Your task to perform on an android device: Go to battery settings Image 0: 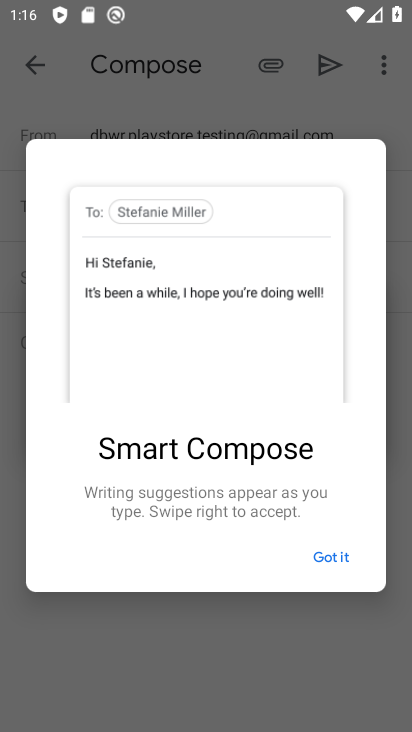
Step 0: press home button
Your task to perform on an android device: Go to battery settings Image 1: 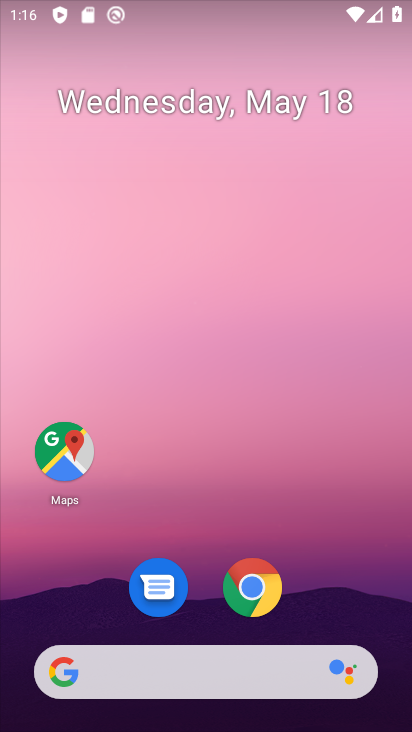
Step 1: drag from (389, 540) to (410, 339)
Your task to perform on an android device: Go to battery settings Image 2: 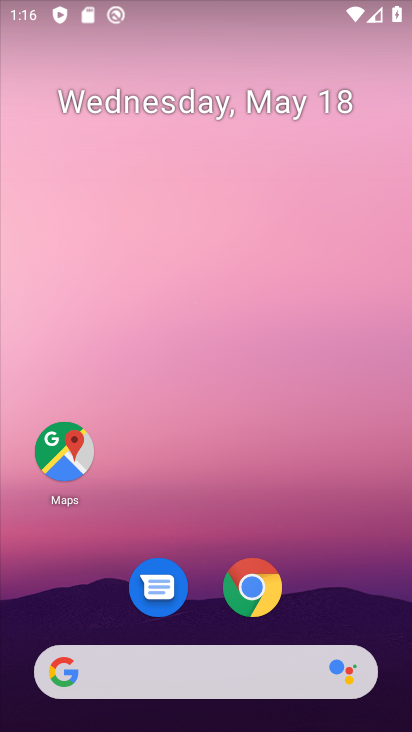
Step 2: drag from (391, 651) to (407, 238)
Your task to perform on an android device: Go to battery settings Image 3: 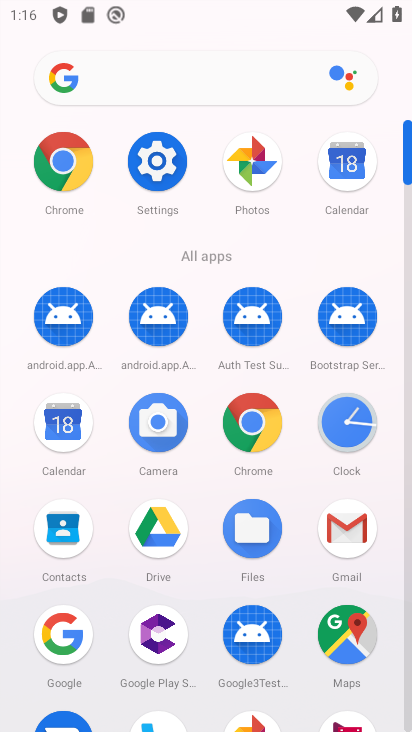
Step 3: click (143, 162)
Your task to perform on an android device: Go to battery settings Image 4: 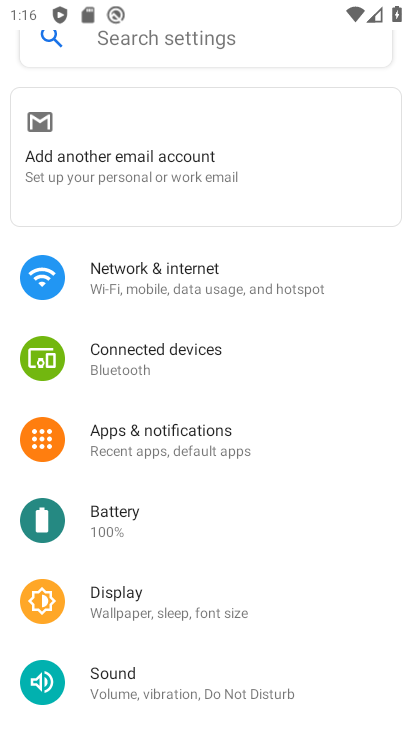
Step 4: click (88, 515)
Your task to perform on an android device: Go to battery settings Image 5: 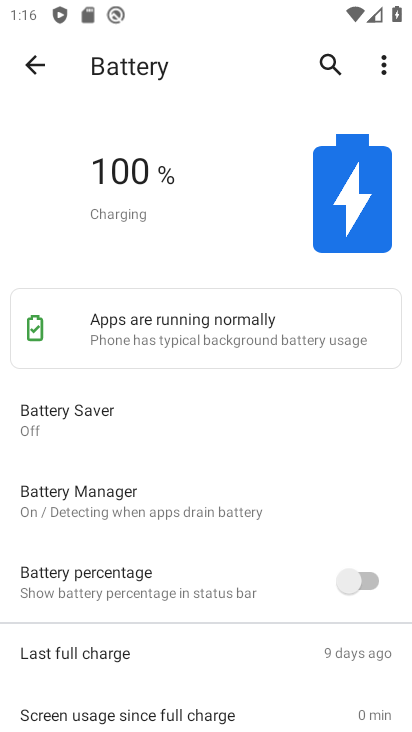
Step 5: task complete